Your task to perform on an android device: set default search engine in the chrome app Image 0: 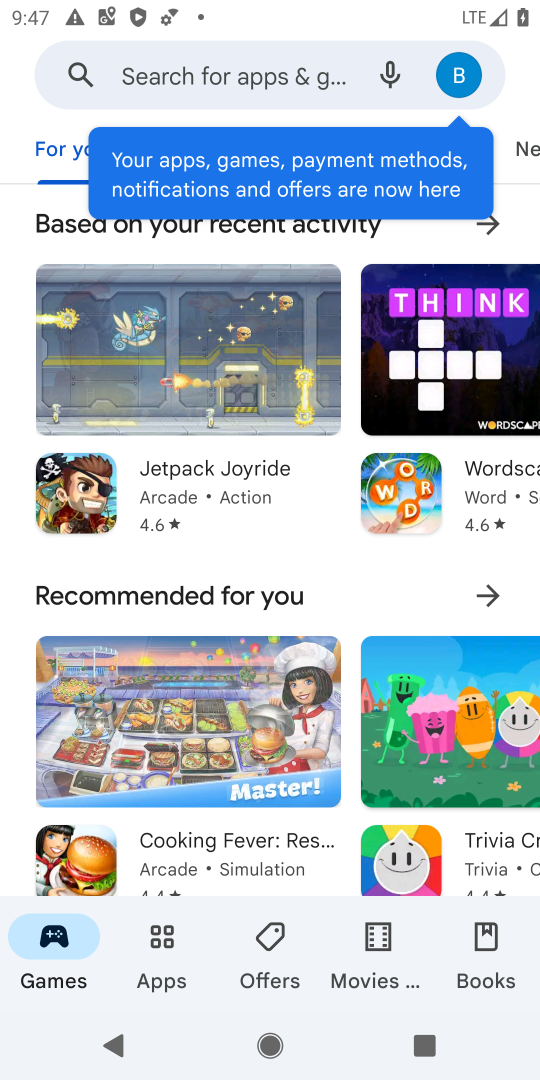
Step 0: press home button
Your task to perform on an android device: set default search engine in the chrome app Image 1: 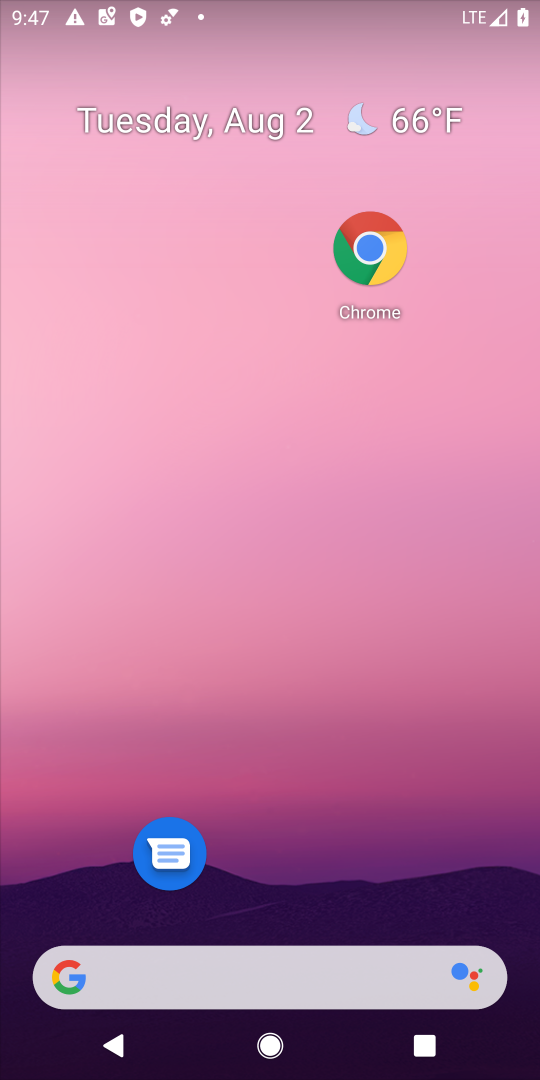
Step 1: click (390, 258)
Your task to perform on an android device: set default search engine in the chrome app Image 2: 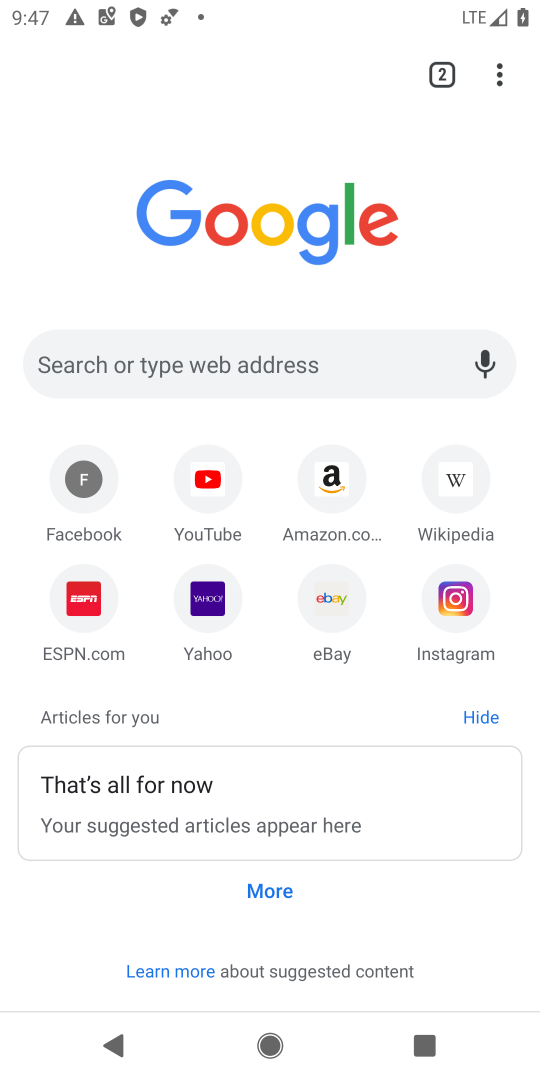
Step 2: click (536, 89)
Your task to perform on an android device: set default search engine in the chrome app Image 3: 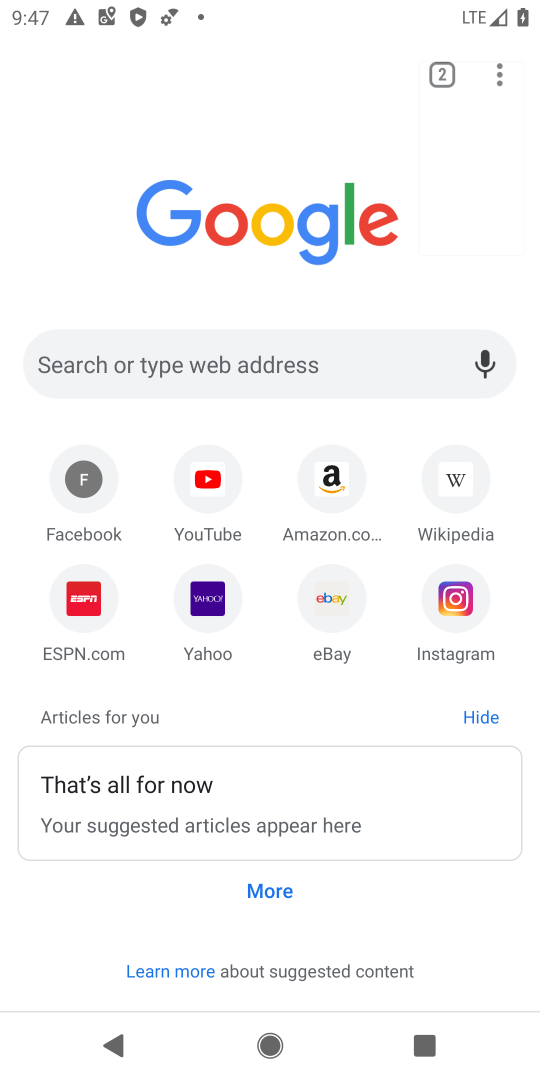
Step 3: drag from (507, 83) to (250, 632)
Your task to perform on an android device: set default search engine in the chrome app Image 4: 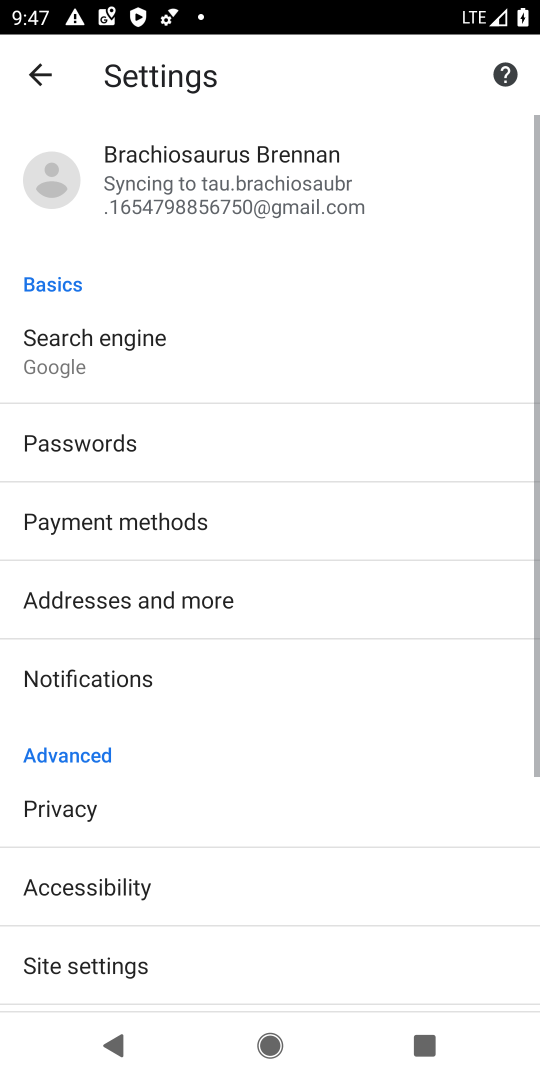
Step 4: click (106, 348)
Your task to perform on an android device: set default search engine in the chrome app Image 5: 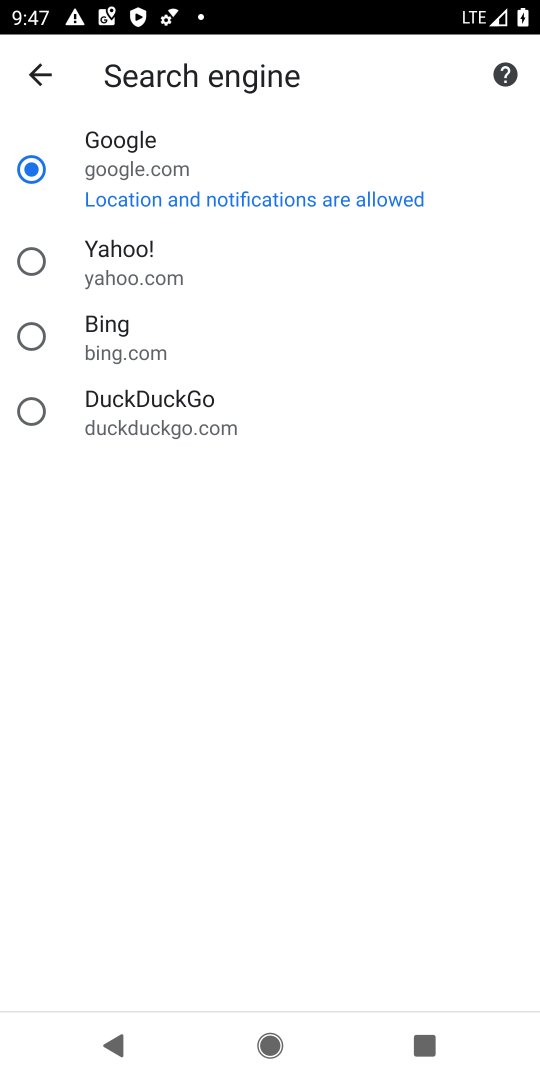
Step 5: drag from (142, 568) to (161, 381)
Your task to perform on an android device: set default search engine in the chrome app Image 6: 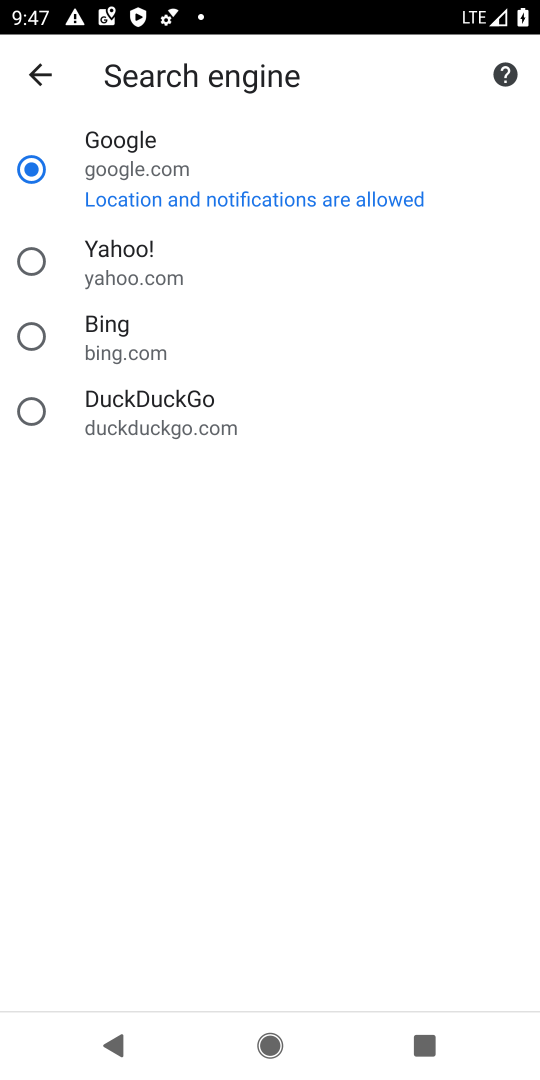
Step 6: click (103, 180)
Your task to perform on an android device: set default search engine in the chrome app Image 7: 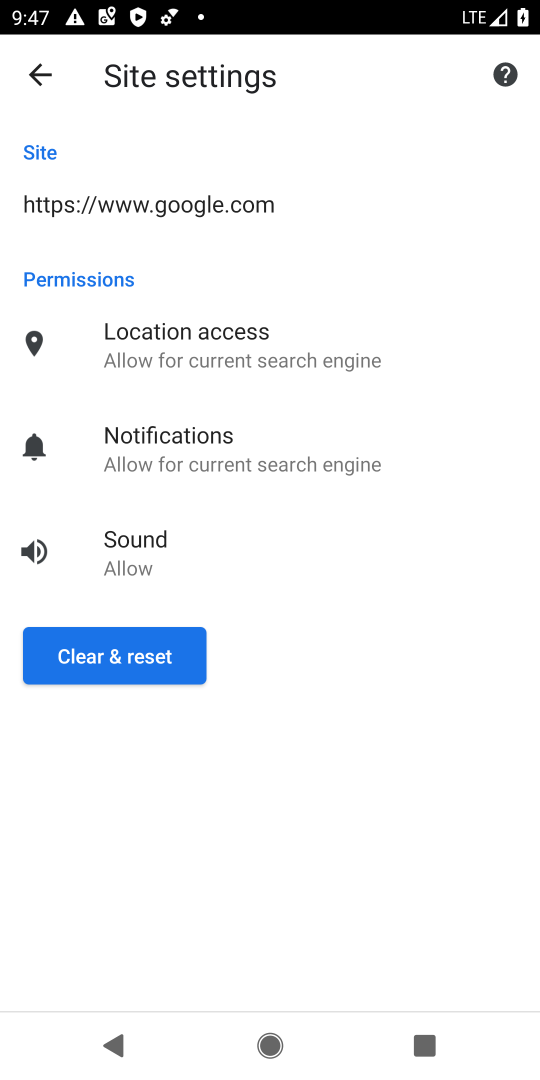
Step 7: task complete